Your task to perform on an android device: Open Reddit.com Image 0: 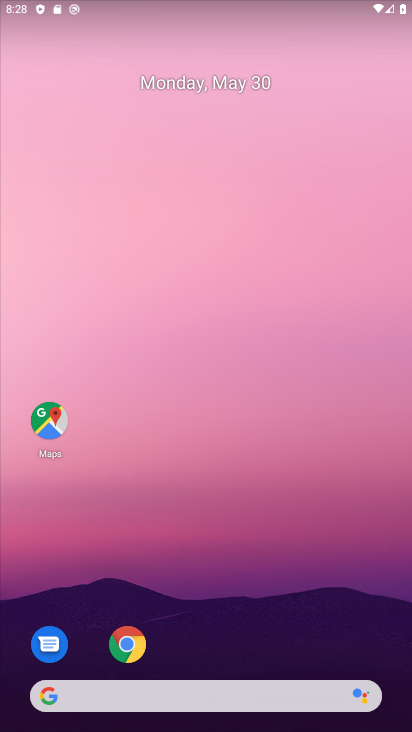
Step 0: drag from (196, 649) to (211, 68)
Your task to perform on an android device: Open Reddit.com Image 1: 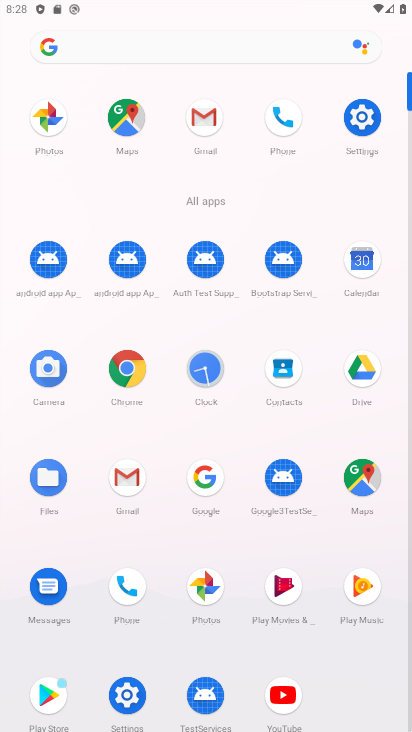
Step 1: click (204, 479)
Your task to perform on an android device: Open Reddit.com Image 2: 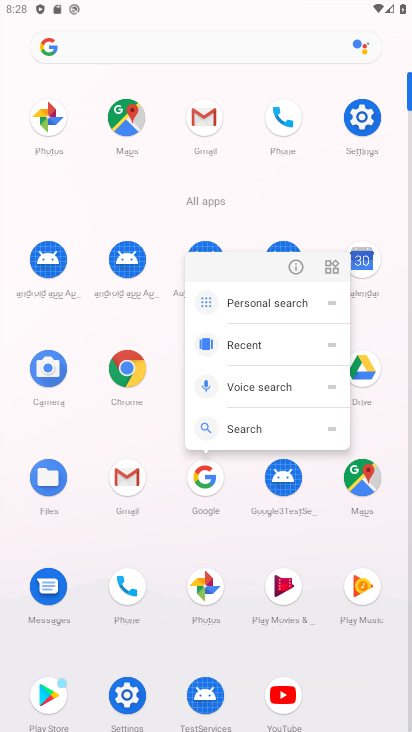
Step 2: click (204, 479)
Your task to perform on an android device: Open Reddit.com Image 3: 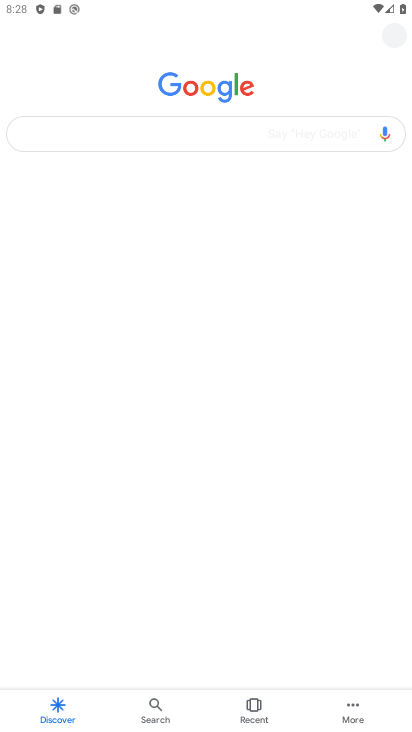
Step 3: click (168, 132)
Your task to perform on an android device: Open Reddit.com Image 4: 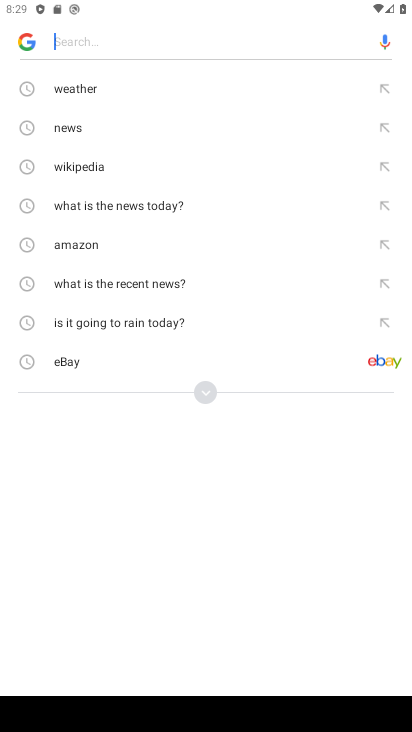
Step 4: click (208, 393)
Your task to perform on an android device: Open Reddit.com Image 5: 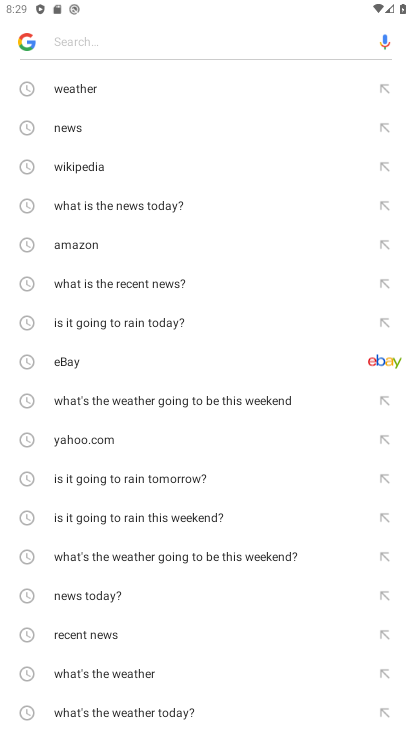
Step 5: drag from (175, 632) to (221, 143)
Your task to perform on an android device: Open Reddit.com Image 6: 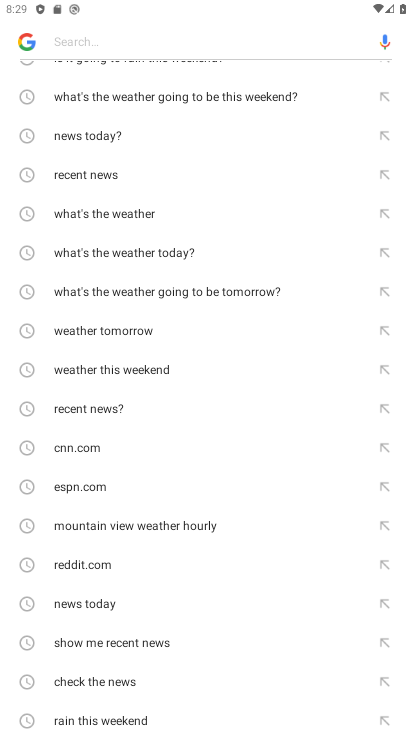
Step 6: click (72, 566)
Your task to perform on an android device: Open Reddit.com Image 7: 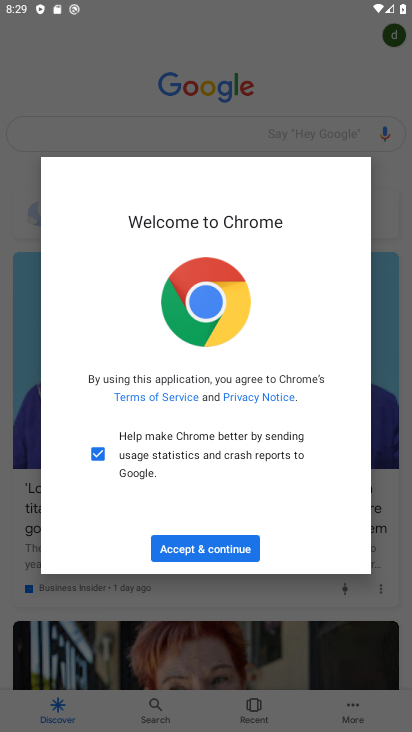
Step 7: click (204, 547)
Your task to perform on an android device: Open Reddit.com Image 8: 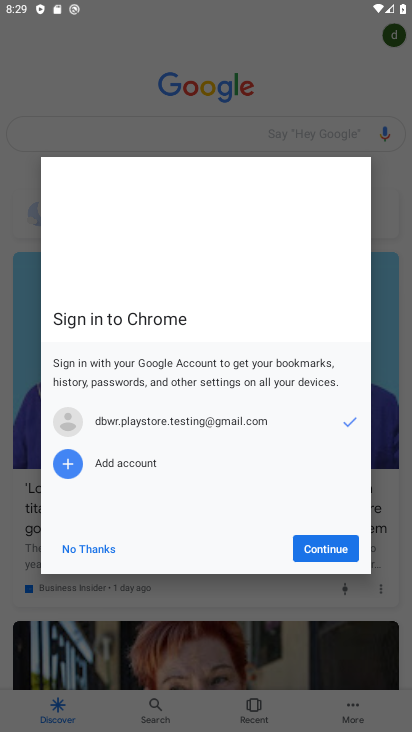
Step 8: click (326, 547)
Your task to perform on an android device: Open Reddit.com Image 9: 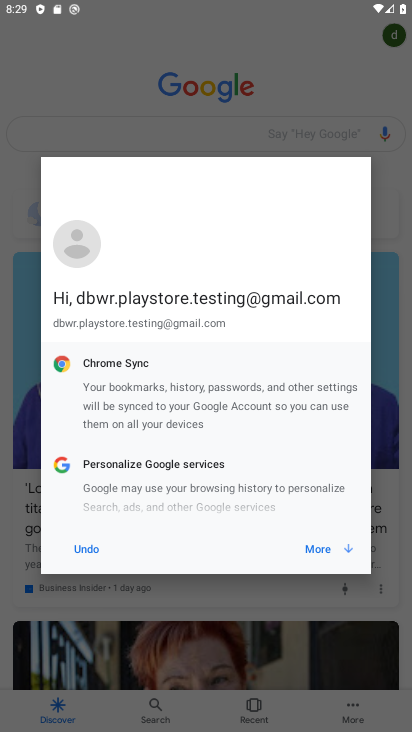
Step 9: click (326, 547)
Your task to perform on an android device: Open Reddit.com Image 10: 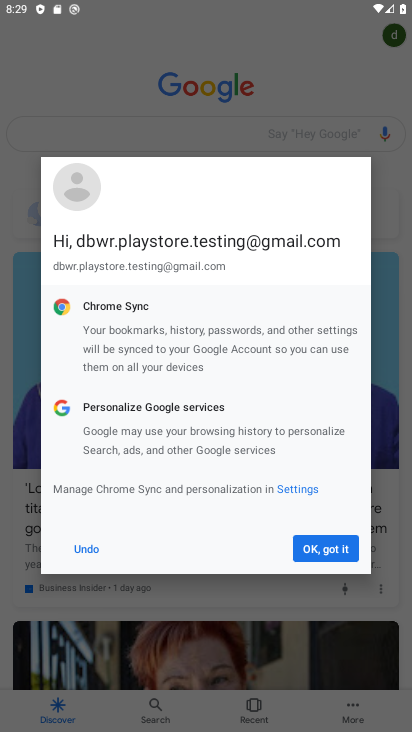
Step 10: click (326, 547)
Your task to perform on an android device: Open Reddit.com Image 11: 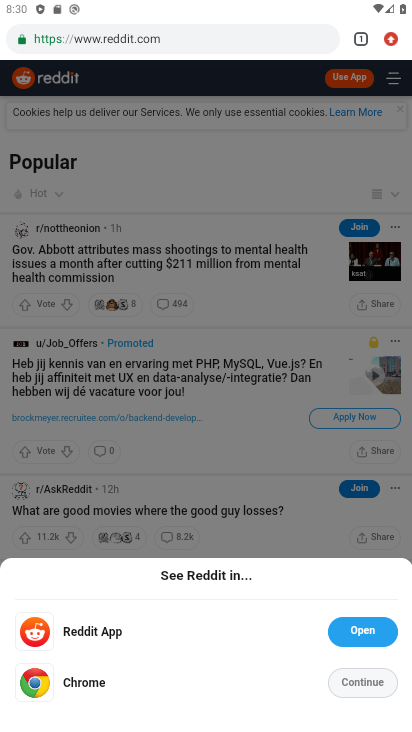
Step 11: task complete